Your task to perform on an android device: Open accessibility settings Image 0: 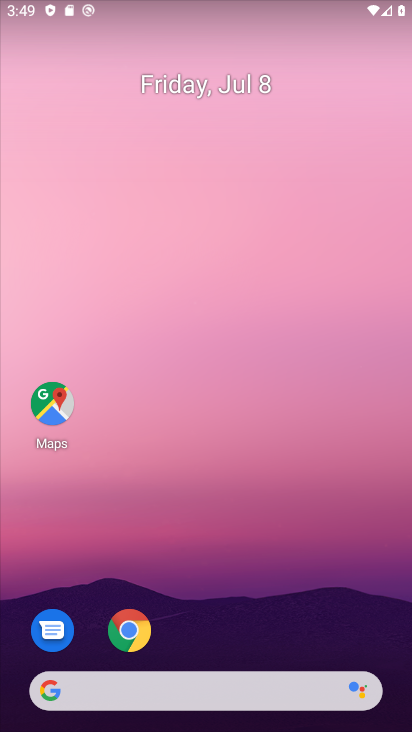
Step 0: drag from (52, 606) to (247, 233)
Your task to perform on an android device: Open accessibility settings Image 1: 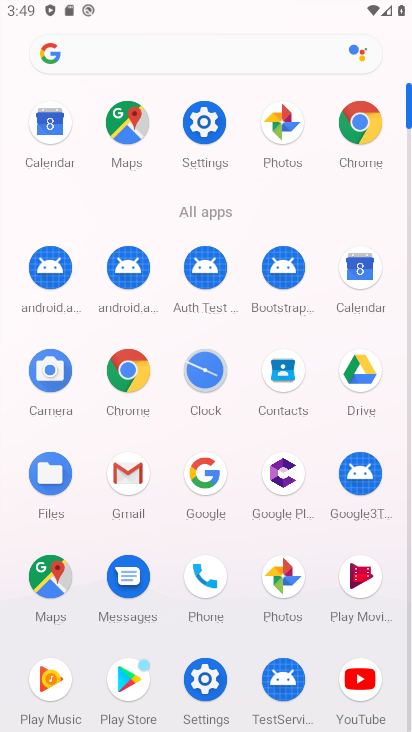
Step 1: click (218, 695)
Your task to perform on an android device: Open accessibility settings Image 2: 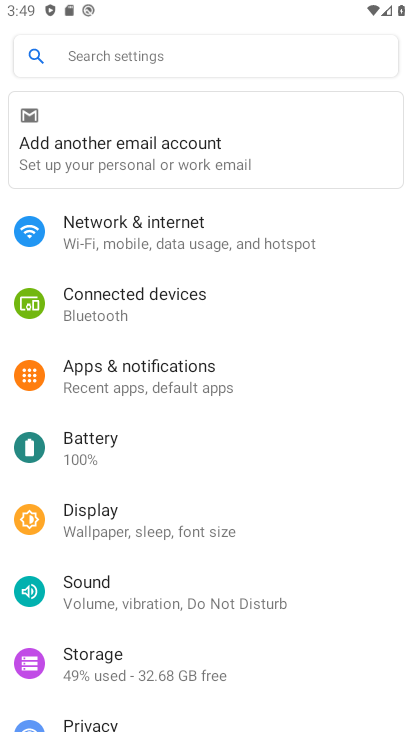
Step 2: drag from (234, 43) to (190, 12)
Your task to perform on an android device: Open accessibility settings Image 3: 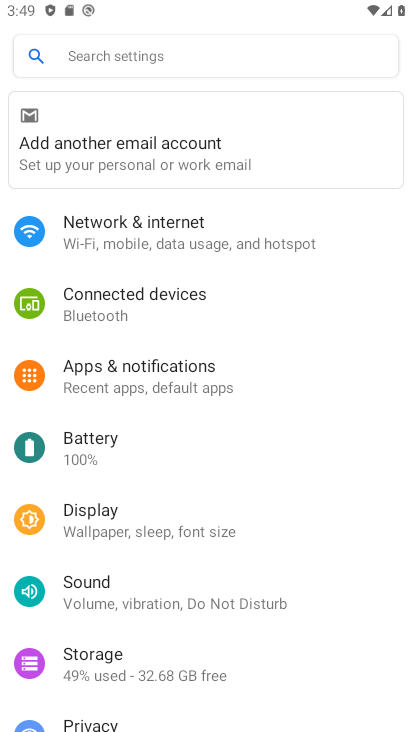
Step 3: drag from (270, 681) to (370, 200)
Your task to perform on an android device: Open accessibility settings Image 4: 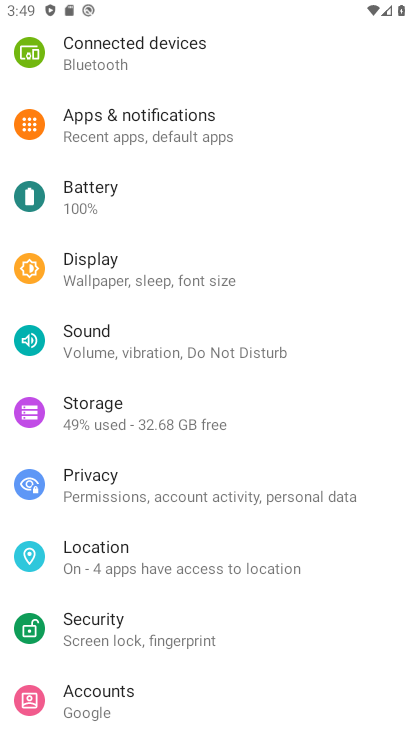
Step 4: drag from (182, 696) to (283, 117)
Your task to perform on an android device: Open accessibility settings Image 5: 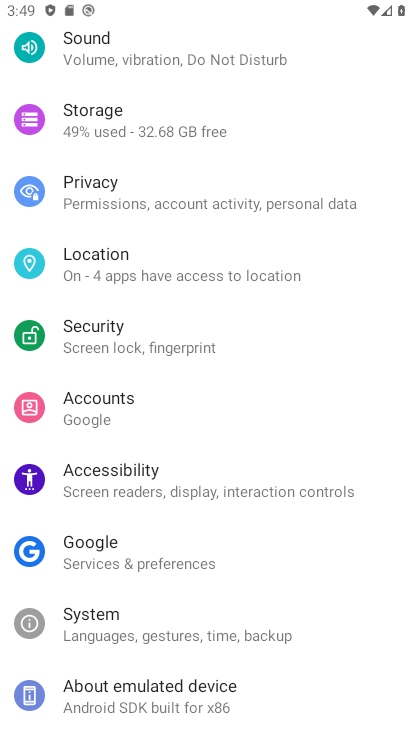
Step 5: drag from (209, 680) to (287, 229)
Your task to perform on an android device: Open accessibility settings Image 6: 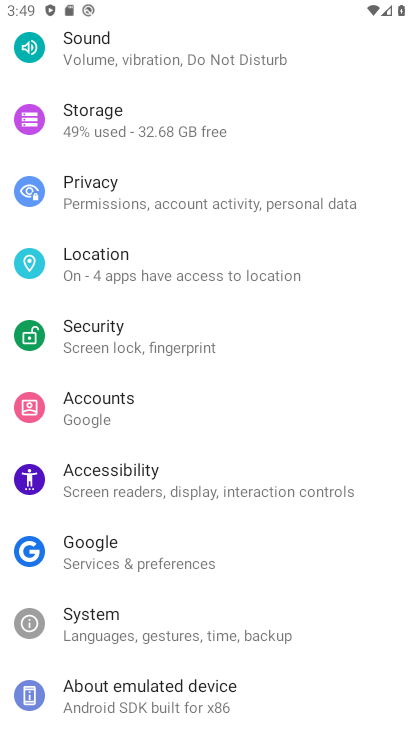
Step 6: click (197, 484)
Your task to perform on an android device: Open accessibility settings Image 7: 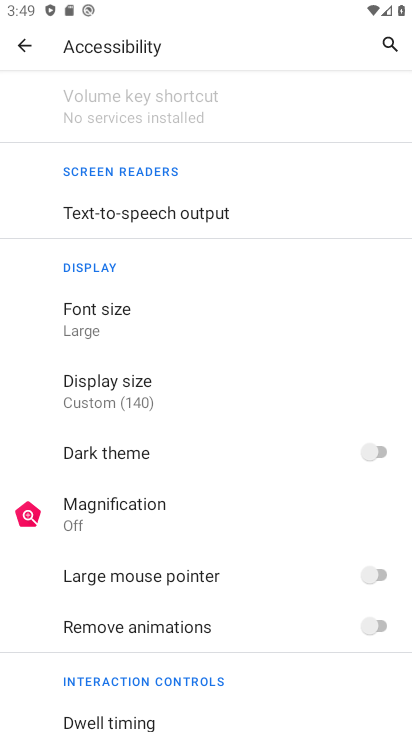
Step 7: task complete